Your task to perform on an android device: set an alarm Image 0: 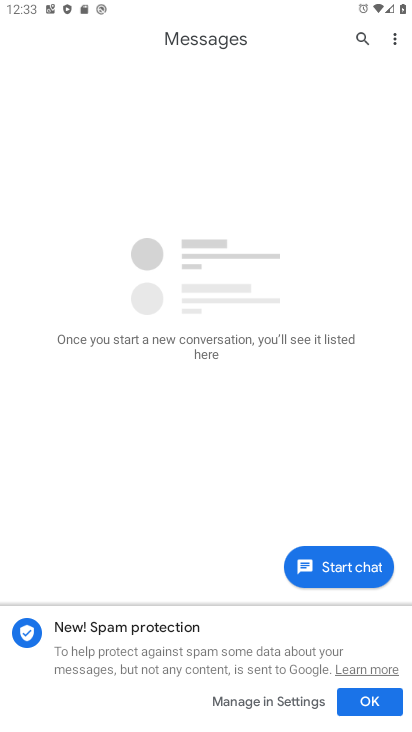
Step 0: press home button
Your task to perform on an android device: set an alarm Image 1: 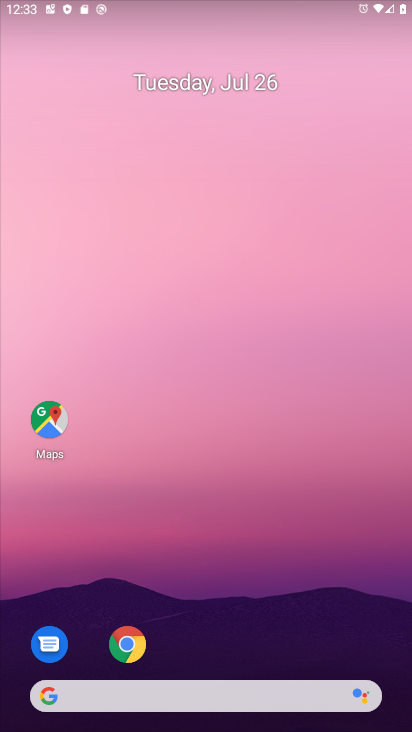
Step 1: drag from (238, 623) to (203, 74)
Your task to perform on an android device: set an alarm Image 2: 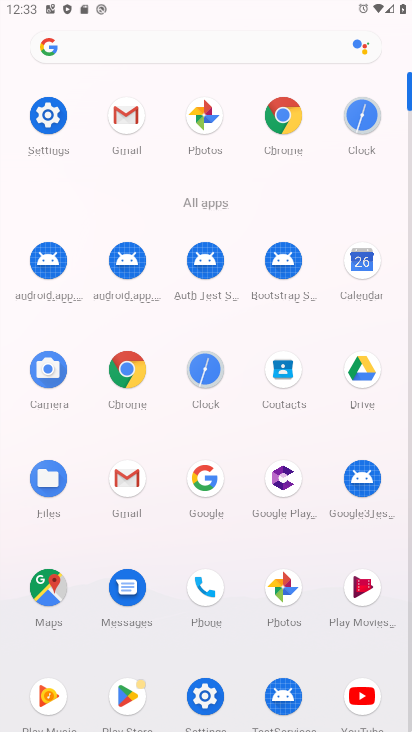
Step 2: click (352, 111)
Your task to perform on an android device: set an alarm Image 3: 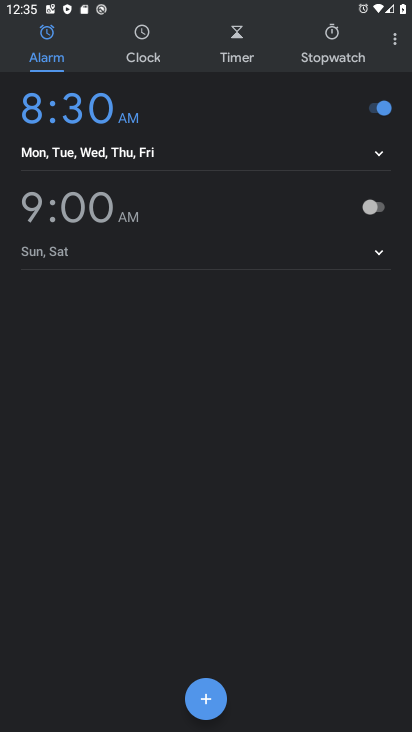
Step 3: task complete